Your task to perform on an android device: open the mobile data screen to see how much data has been used Image 0: 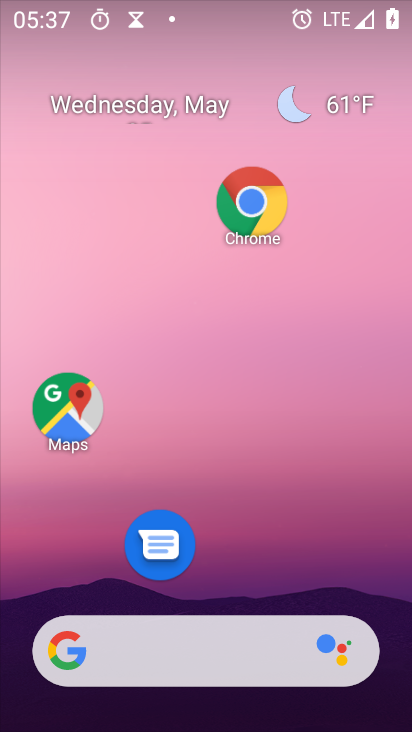
Step 0: drag from (269, 601) to (264, 277)
Your task to perform on an android device: open the mobile data screen to see how much data has been used Image 1: 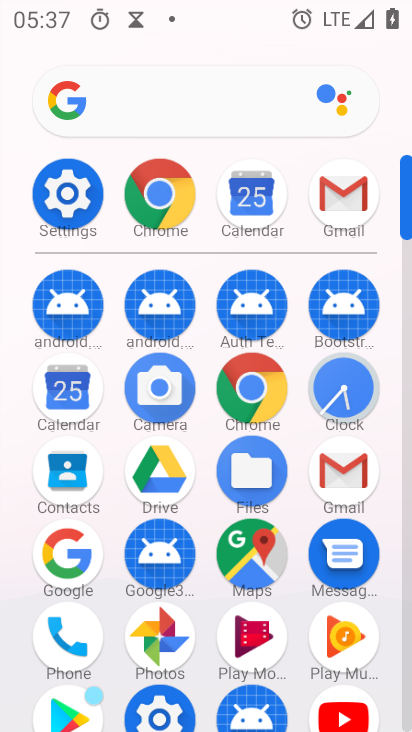
Step 1: click (53, 187)
Your task to perform on an android device: open the mobile data screen to see how much data has been used Image 2: 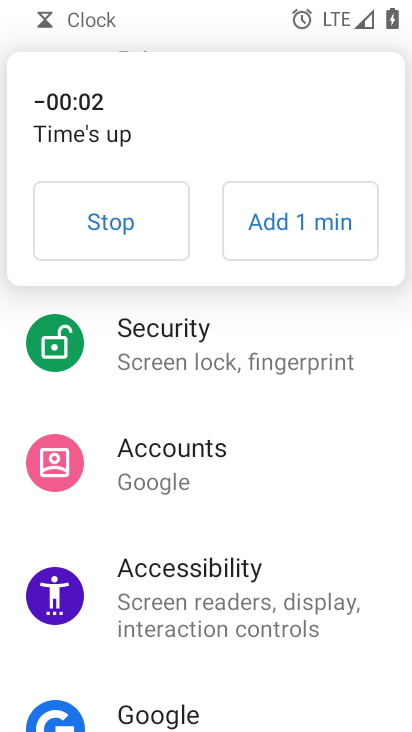
Step 2: click (121, 230)
Your task to perform on an android device: open the mobile data screen to see how much data has been used Image 3: 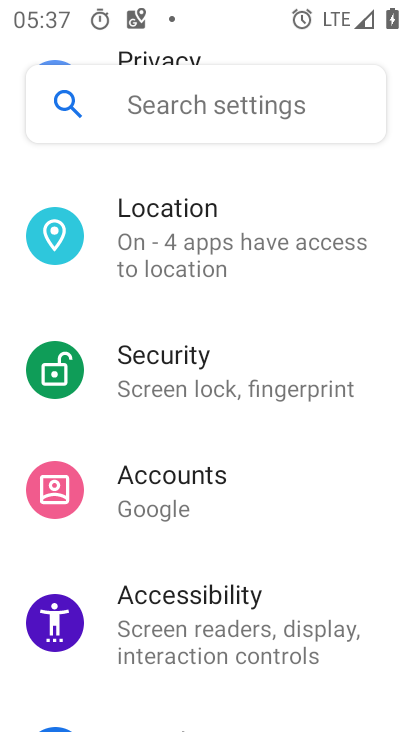
Step 3: drag from (211, 195) to (211, 562)
Your task to perform on an android device: open the mobile data screen to see how much data has been used Image 4: 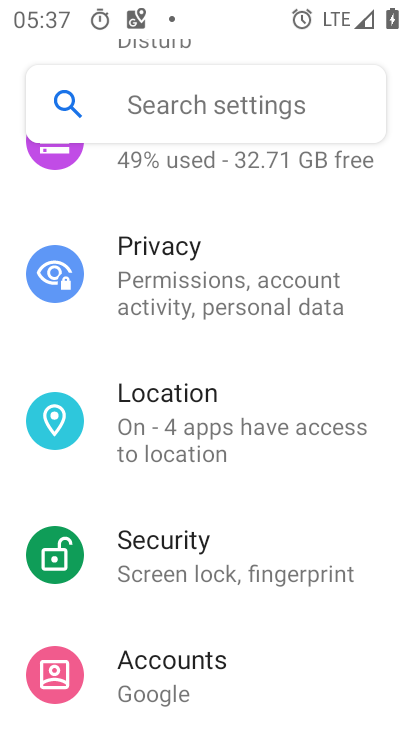
Step 4: drag from (144, 204) to (180, 592)
Your task to perform on an android device: open the mobile data screen to see how much data has been used Image 5: 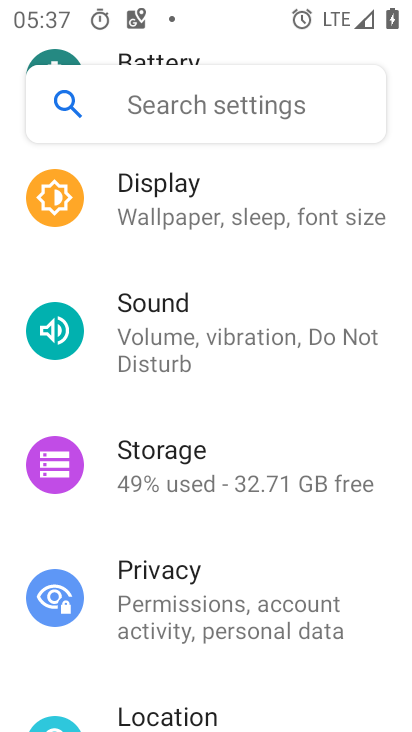
Step 5: drag from (259, 178) to (259, 610)
Your task to perform on an android device: open the mobile data screen to see how much data has been used Image 6: 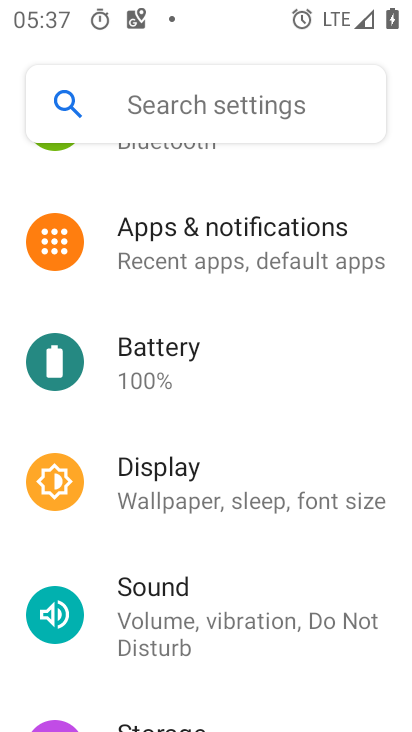
Step 6: drag from (226, 192) to (229, 571)
Your task to perform on an android device: open the mobile data screen to see how much data has been used Image 7: 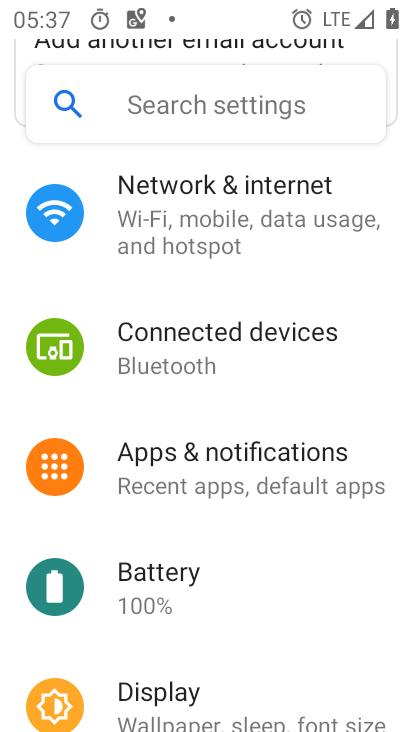
Step 7: click (191, 218)
Your task to perform on an android device: open the mobile data screen to see how much data has been used Image 8: 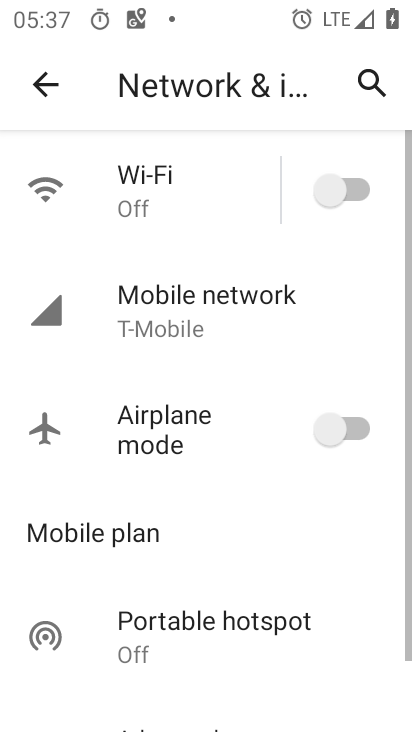
Step 8: click (183, 314)
Your task to perform on an android device: open the mobile data screen to see how much data has been used Image 9: 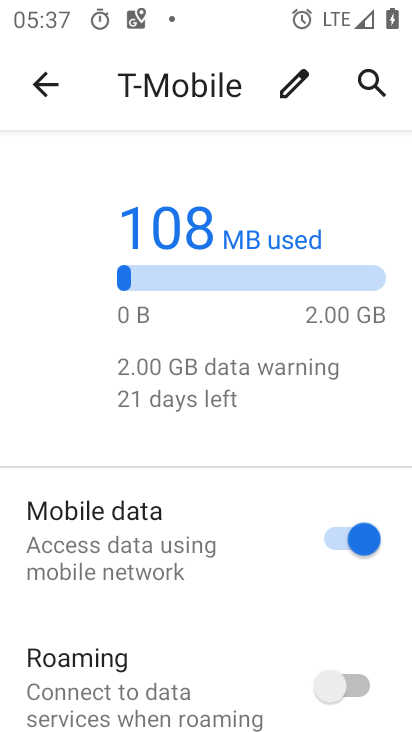
Step 9: task complete